Your task to perform on an android device: set an alarm Image 0: 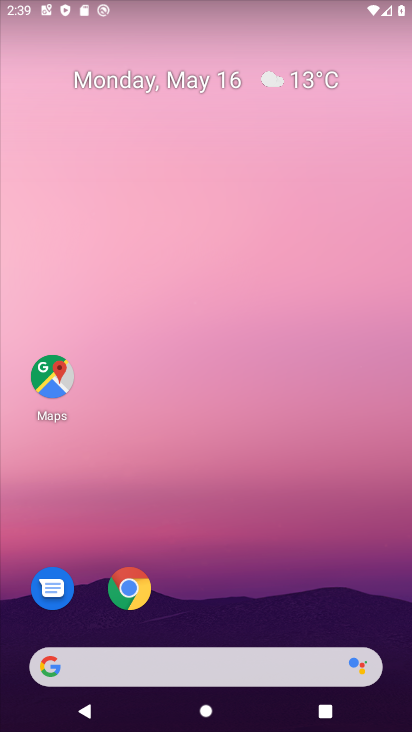
Step 0: drag from (197, 687) to (227, 105)
Your task to perform on an android device: set an alarm Image 1: 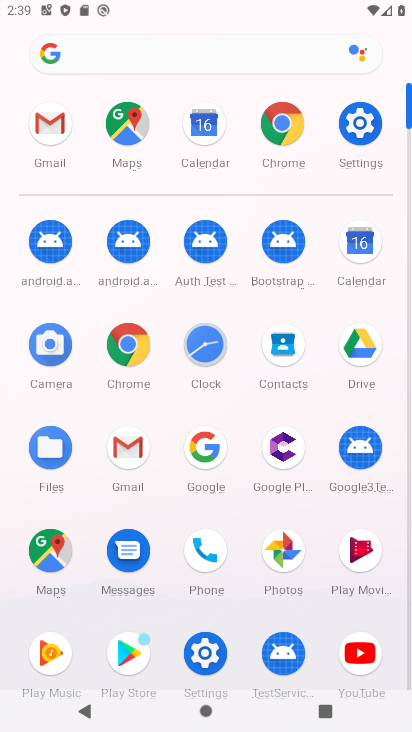
Step 1: click (193, 335)
Your task to perform on an android device: set an alarm Image 2: 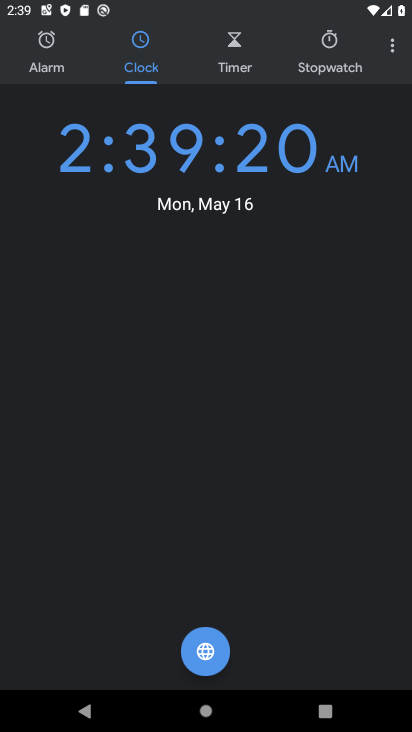
Step 2: click (58, 44)
Your task to perform on an android device: set an alarm Image 3: 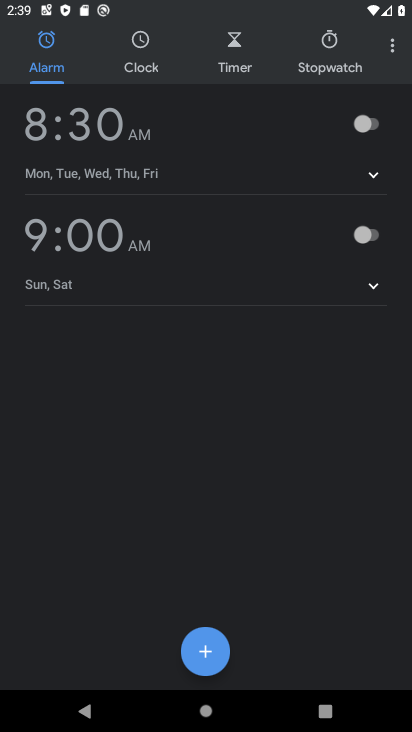
Step 3: task complete